Your task to perform on an android device: see sites visited before in the chrome app Image 0: 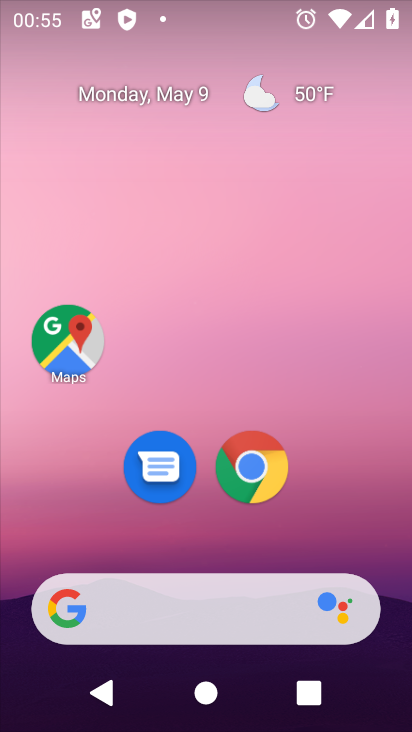
Step 0: click (251, 459)
Your task to perform on an android device: see sites visited before in the chrome app Image 1: 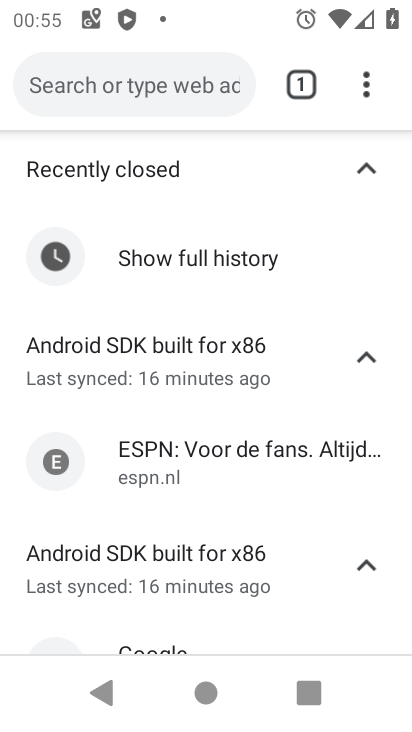
Step 1: click (368, 80)
Your task to perform on an android device: see sites visited before in the chrome app Image 2: 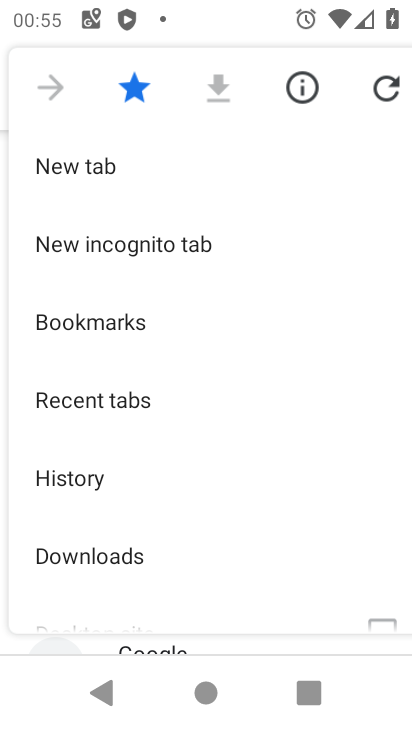
Step 2: click (114, 473)
Your task to perform on an android device: see sites visited before in the chrome app Image 3: 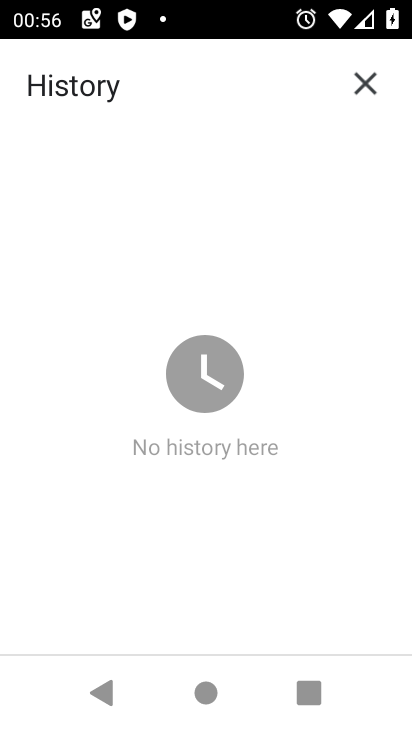
Step 3: task complete